Your task to perform on an android device: toggle pop-ups in chrome Image 0: 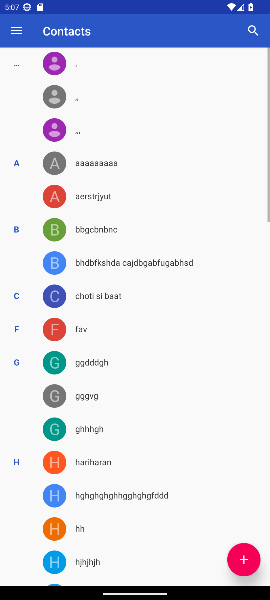
Step 0: press home button
Your task to perform on an android device: toggle pop-ups in chrome Image 1: 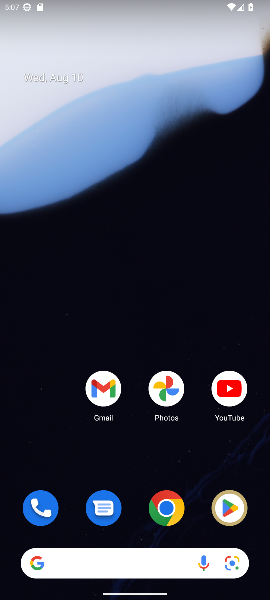
Step 1: click (165, 504)
Your task to perform on an android device: toggle pop-ups in chrome Image 2: 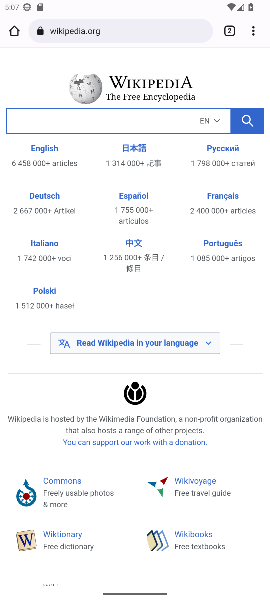
Step 2: drag from (251, 30) to (168, 394)
Your task to perform on an android device: toggle pop-ups in chrome Image 3: 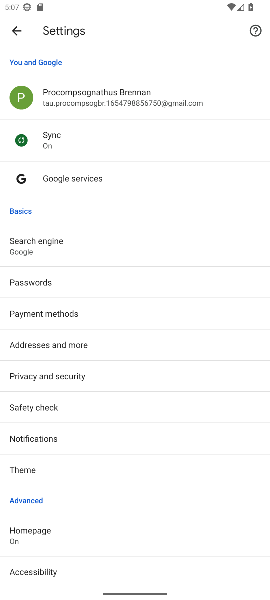
Step 3: drag from (102, 531) to (34, 273)
Your task to perform on an android device: toggle pop-ups in chrome Image 4: 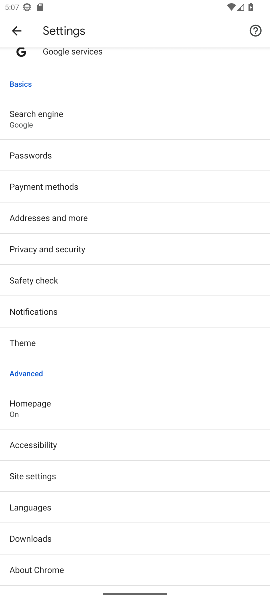
Step 4: click (27, 479)
Your task to perform on an android device: toggle pop-ups in chrome Image 5: 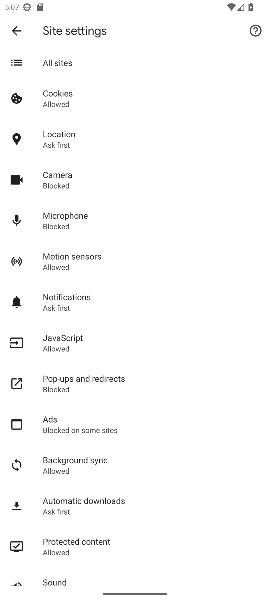
Step 5: click (67, 385)
Your task to perform on an android device: toggle pop-ups in chrome Image 6: 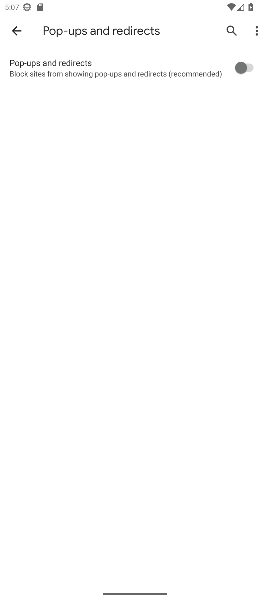
Step 6: click (239, 70)
Your task to perform on an android device: toggle pop-ups in chrome Image 7: 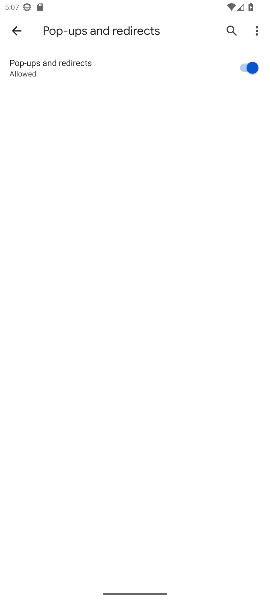
Step 7: task complete